Your task to perform on an android device: Go to Google maps Image 0: 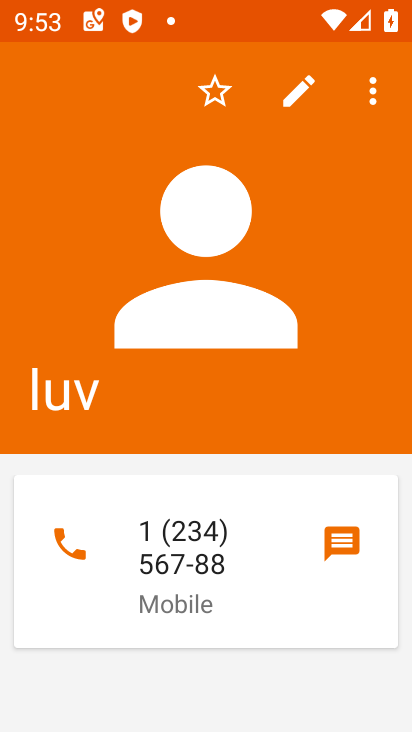
Step 0: press home button
Your task to perform on an android device: Go to Google maps Image 1: 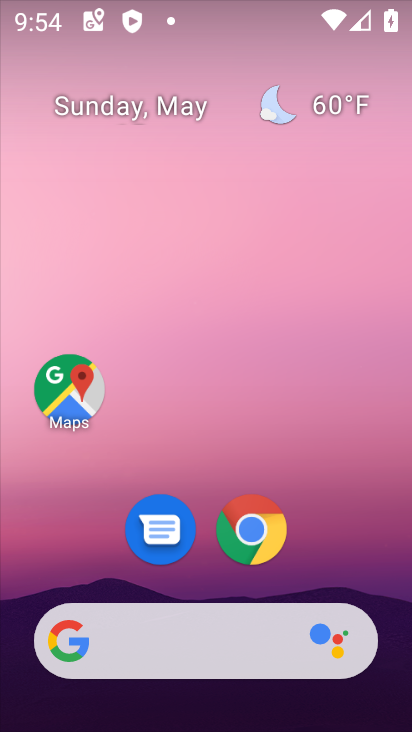
Step 1: drag from (391, 579) to (405, 178)
Your task to perform on an android device: Go to Google maps Image 2: 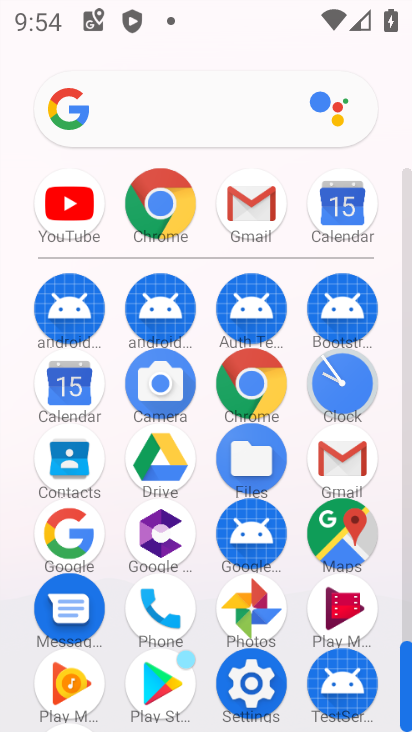
Step 2: click (346, 541)
Your task to perform on an android device: Go to Google maps Image 3: 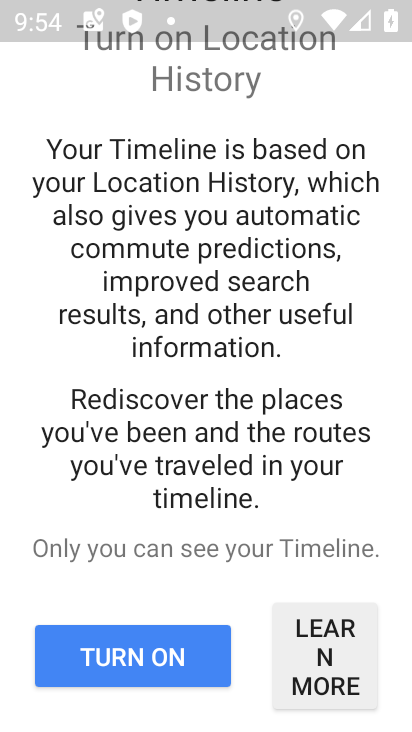
Step 3: drag from (252, 581) to (267, 381)
Your task to perform on an android device: Go to Google maps Image 4: 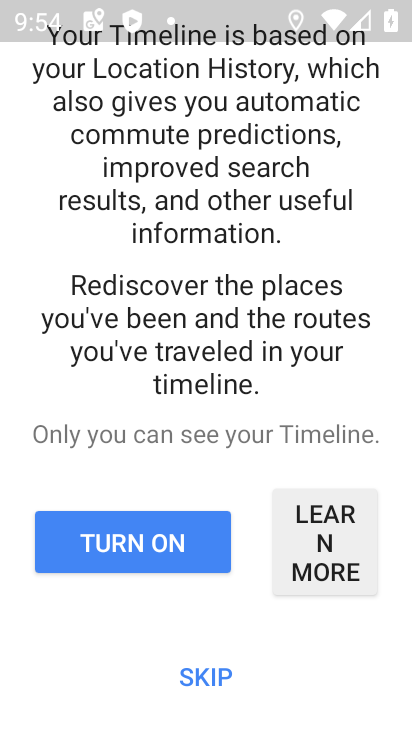
Step 4: click (223, 677)
Your task to perform on an android device: Go to Google maps Image 5: 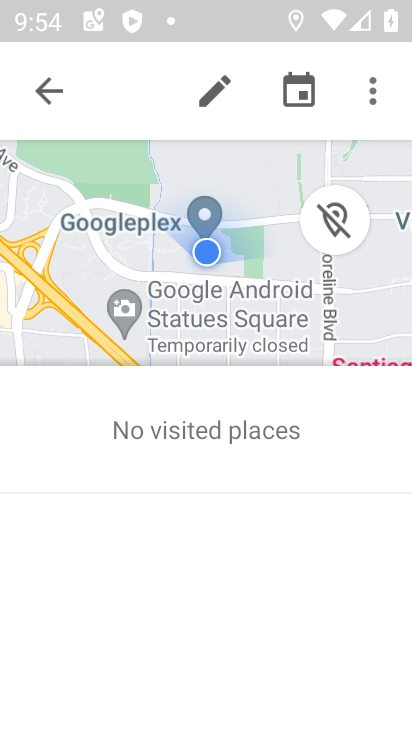
Step 5: task complete